Your task to perform on an android device: change keyboard looks Image 0: 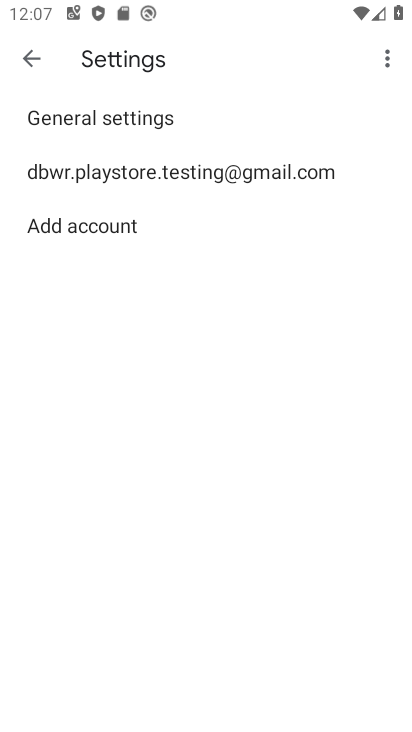
Step 0: press back button
Your task to perform on an android device: change keyboard looks Image 1: 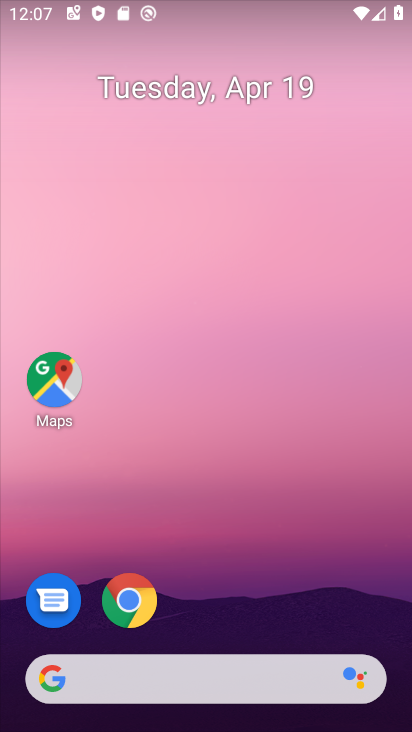
Step 1: drag from (189, 676) to (156, 4)
Your task to perform on an android device: change keyboard looks Image 2: 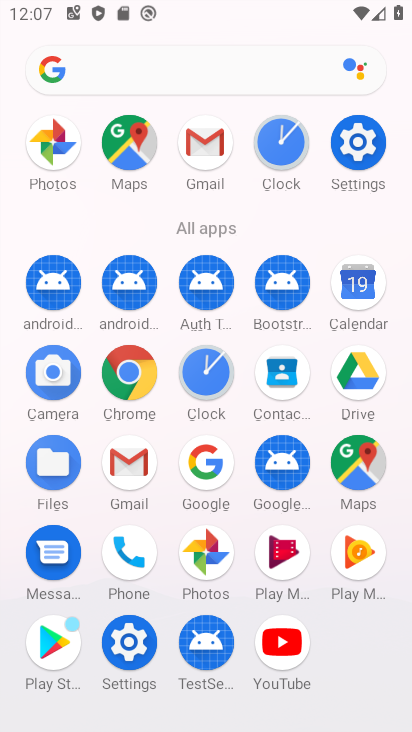
Step 2: click (150, 632)
Your task to perform on an android device: change keyboard looks Image 3: 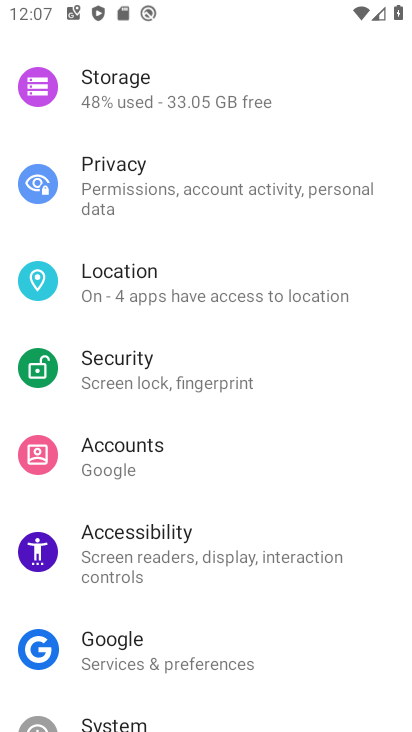
Step 3: drag from (149, 613) to (155, 236)
Your task to perform on an android device: change keyboard looks Image 4: 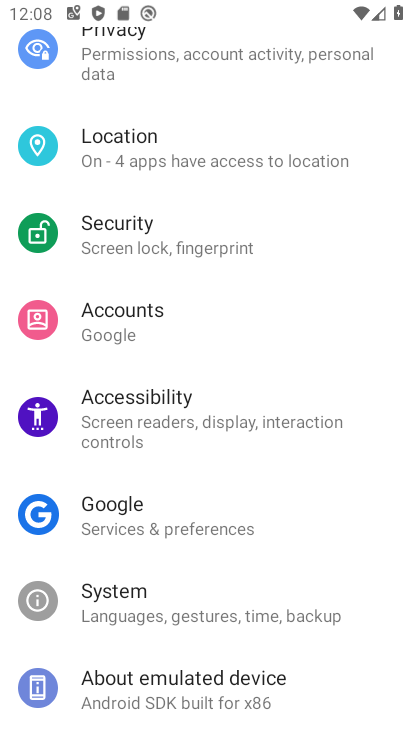
Step 4: click (143, 609)
Your task to perform on an android device: change keyboard looks Image 5: 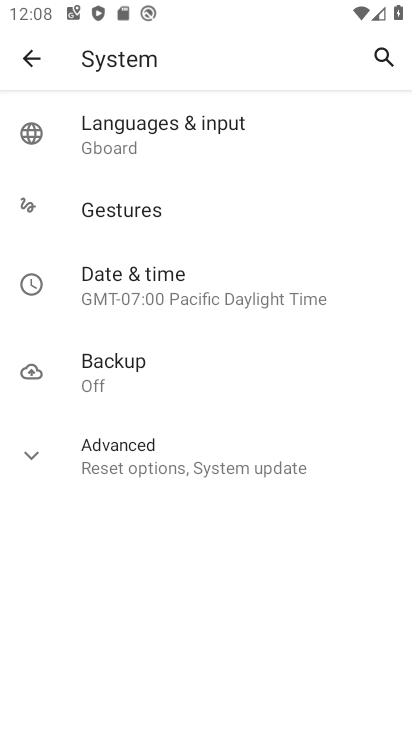
Step 5: click (142, 131)
Your task to perform on an android device: change keyboard looks Image 6: 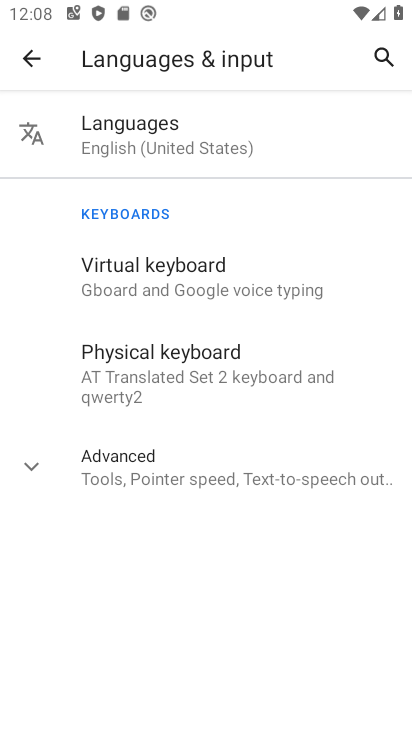
Step 6: click (162, 276)
Your task to perform on an android device: change keyboard looks Image 7: 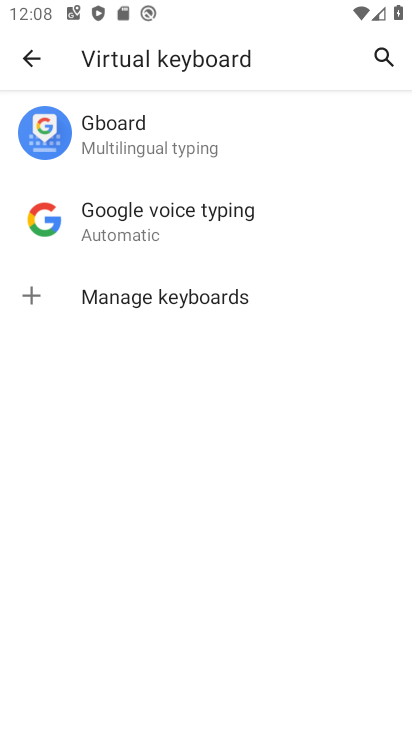
Step 7: click (159, 147)
Your task to perform on an android device: change keyboard looks Image 8: 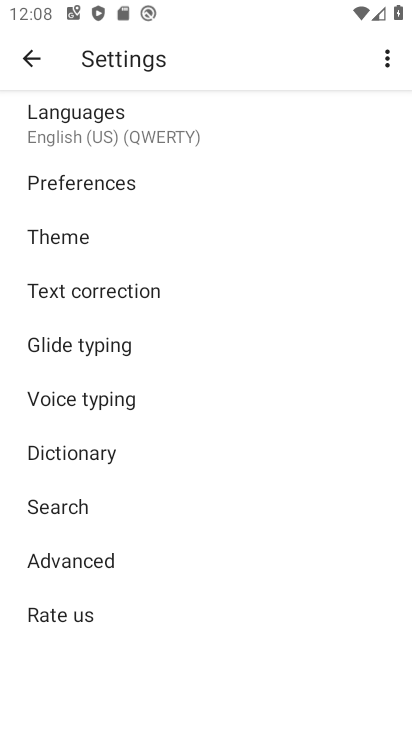
Step 8: click (43, 226)
Your task to perform on an android device: change keyboard looks Image 9: 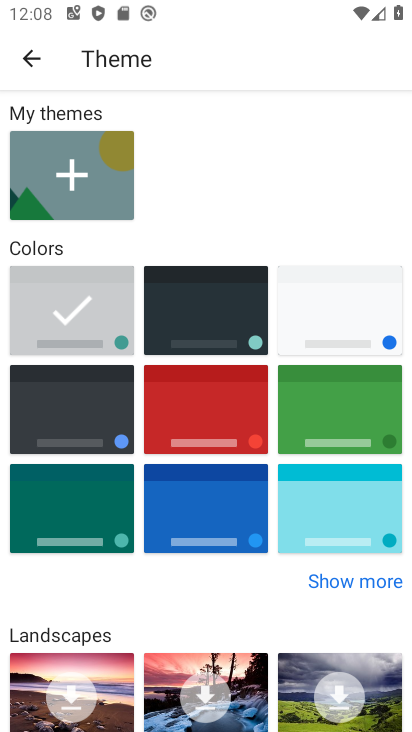
Step 9: click (324, 519)
Your task to perform on an android device: change keyboard looks Image 10: 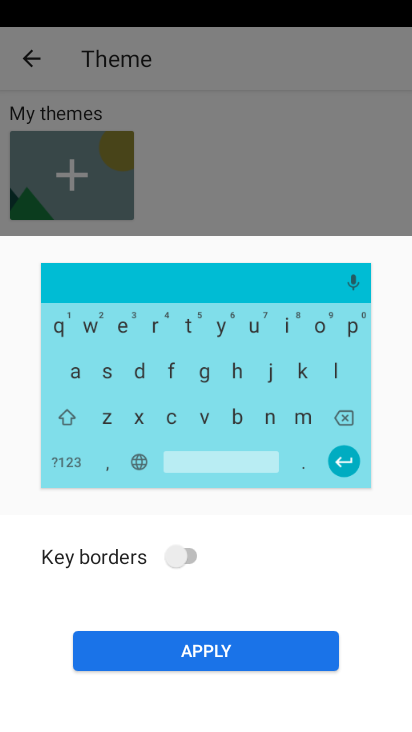
Step 10: click (205, 655)
Your task to perform on an android device: change keyboard looks Image 11: 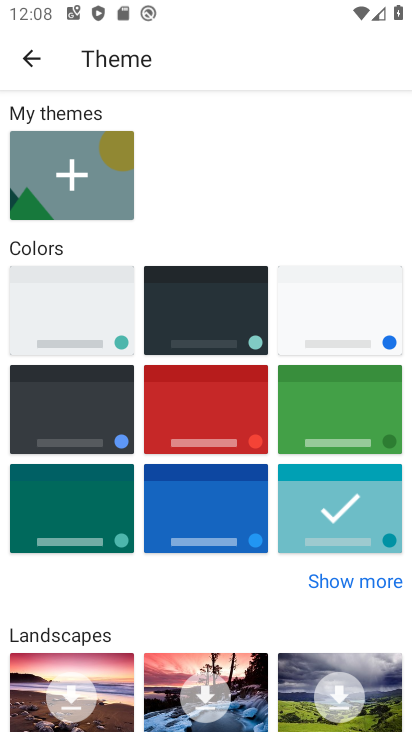
Step 11: task complete